Your task to perform on an android device: Go to notification settings Image 0: 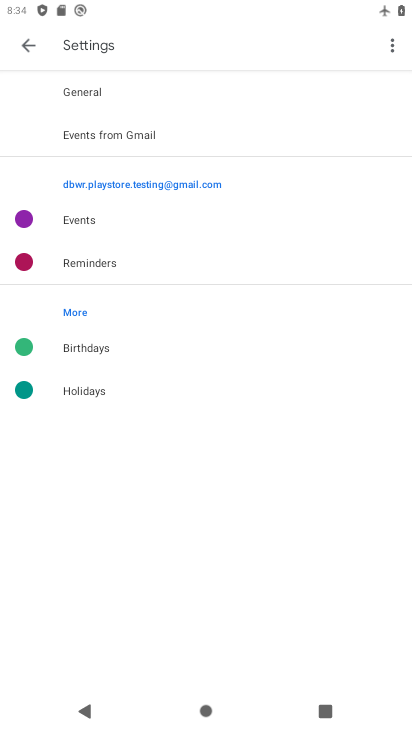
Step 0: press home button
Your task to perform on an android device: Go to notification settings Image 1: 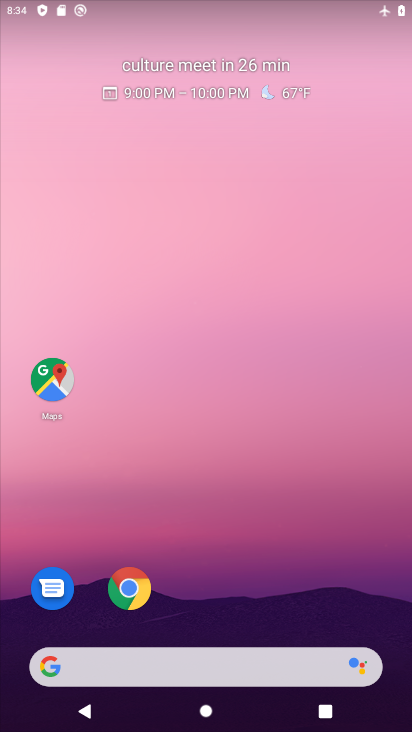
Step 1: drag from (311, 582) to (316, 9)
Your task to perform on an android device: Go to notification settings Image 2: 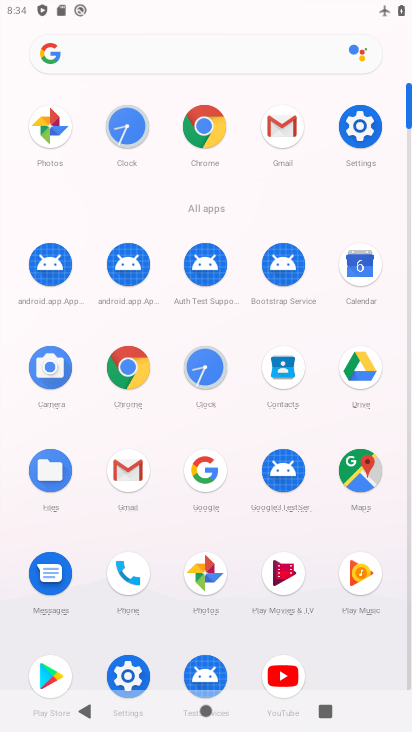
Step 2: click (353, 125)
Your task to perform on an android device: Go to notification settings Image 3: 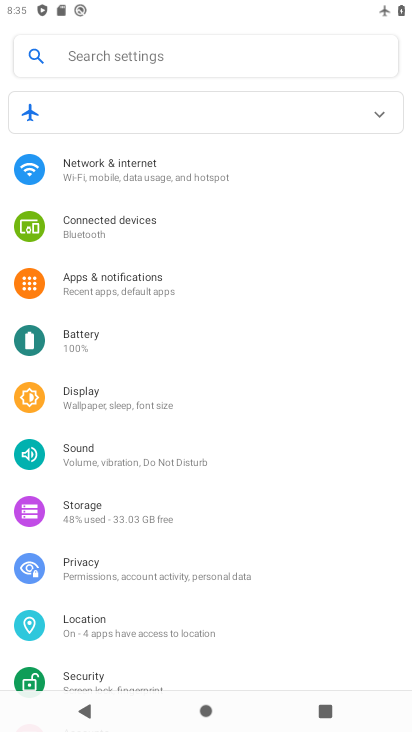
Step 3: click (151, 276)
Your task to perform on an android device: Go to notification settings Image 4: 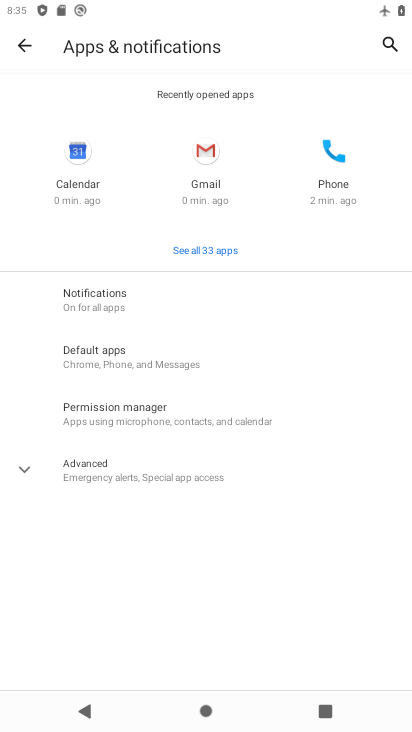
Step 4: click (89, 302)
Your task to perform on an android device: Go to notification settings Image 5: 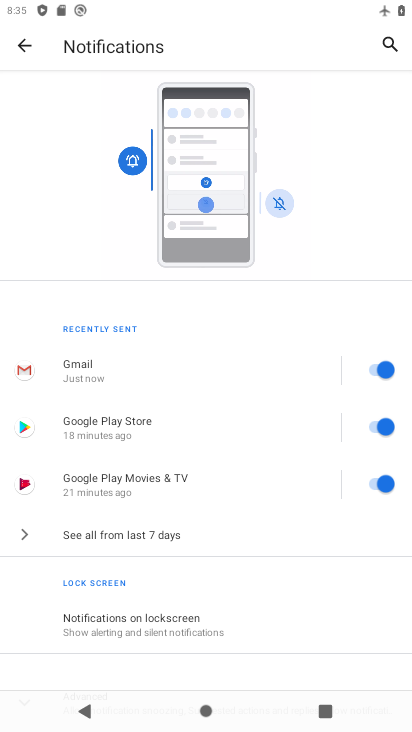
Step 5: task complete